Your task to perform on an android device: delete location history Image 0: 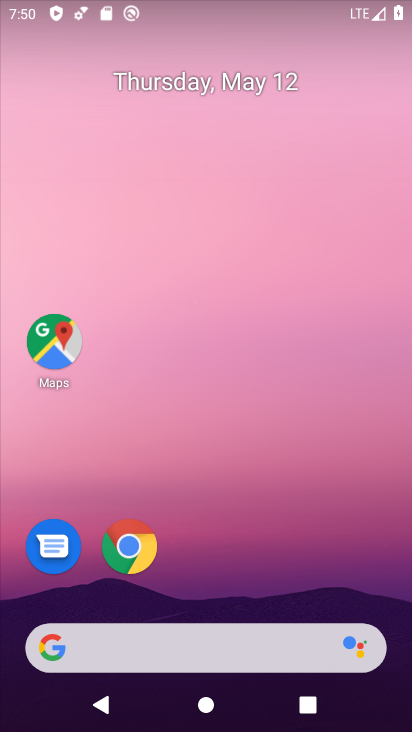
Step 0: click (48, 340)
Your task to perform on an android device: delete location history Image 1: 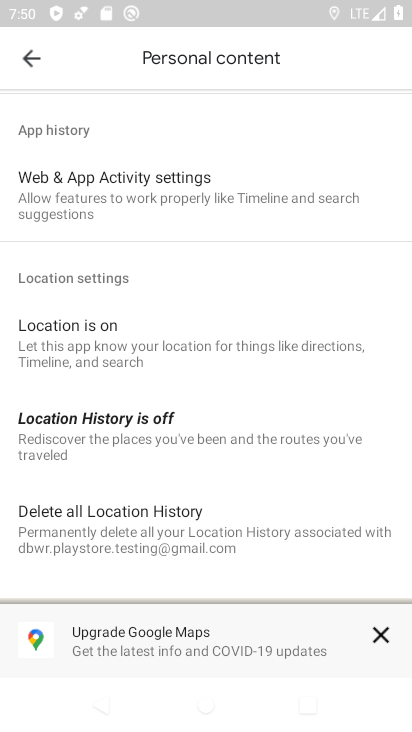
Step 1: click (128, 518)
Your task to perform on an android device: delete location history Image 2: 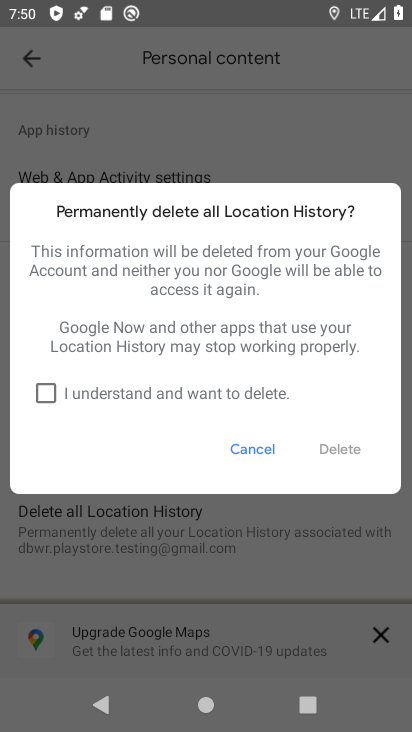
Step 2: click (46, 392)
Your task to perform on an android device: delete location history Image 3: 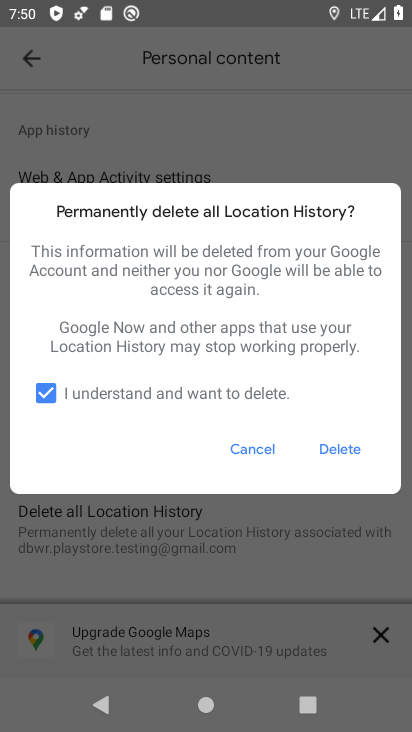
Step 3: click (344, 443)
Your task to perform on an android device: delete location history Image 4: 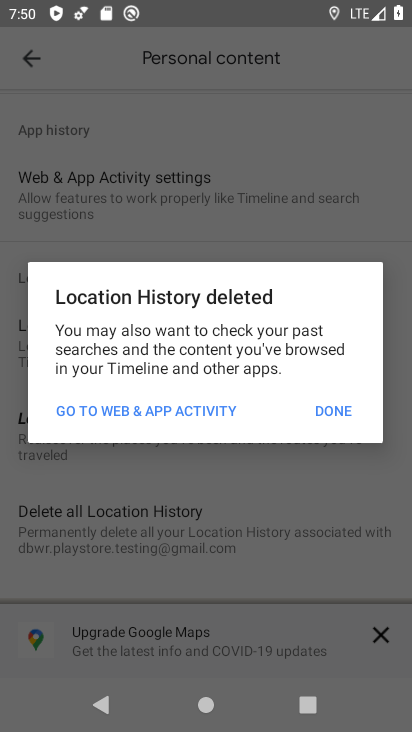
Step 4: click (325, 412)
Your task to perform on an android device: delete location history Image 5: 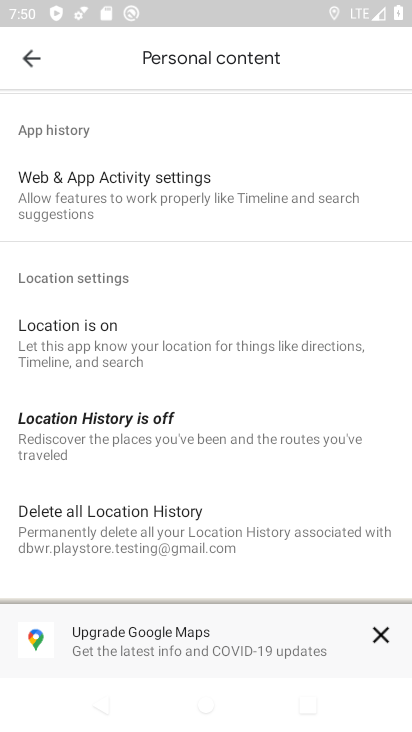
Step 5: task complete